Your task to perform on an android device: Open internet settings Image 0: 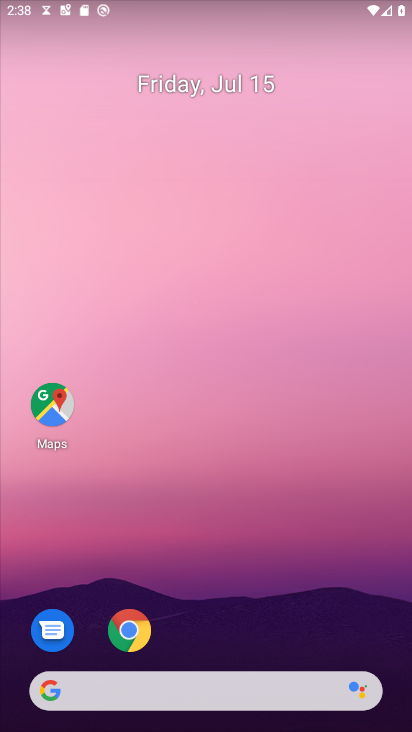
Step 0: drag from (234, 625) to (296, 22)
Your task to perform on an android device: Open internet settings Image 1: 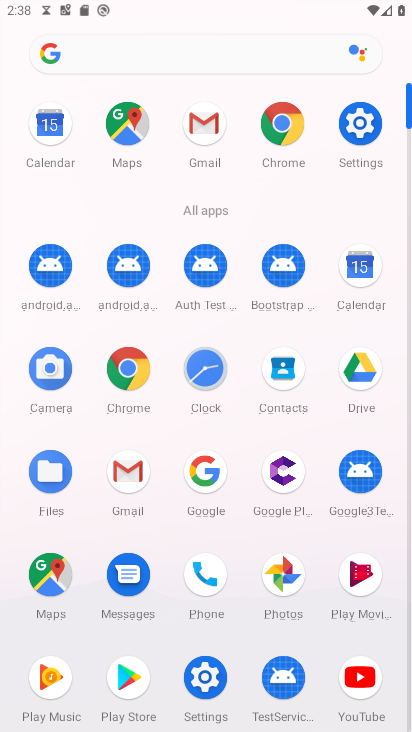
Step 1: click (340, 127)
Your task to perform on an android device: Open internet settings Image 2: 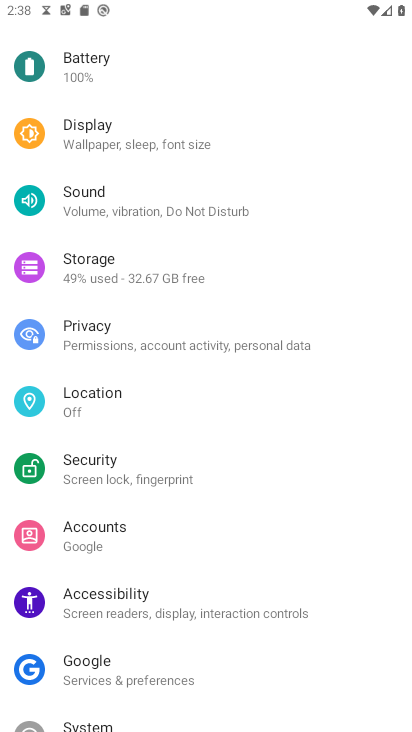
Step 2: drag from (144, 142) to (159, 579)
Your task to perform on an android device: Open internet settings Image 3: 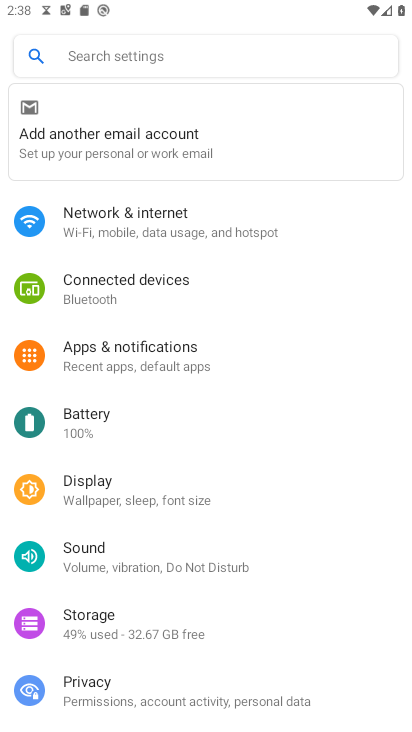
Step 3: click (114, 225)
Your task to perform on an android device: Open internet settings Image 4: 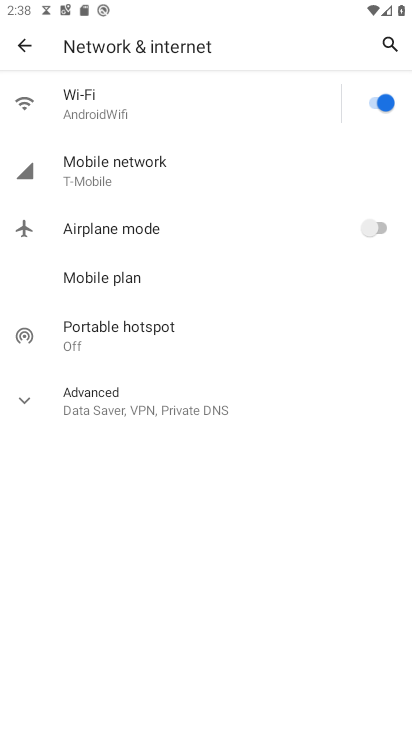
Step 4: click (92, 180)
Your task to perform on an android device: Open internet settings Image 5: 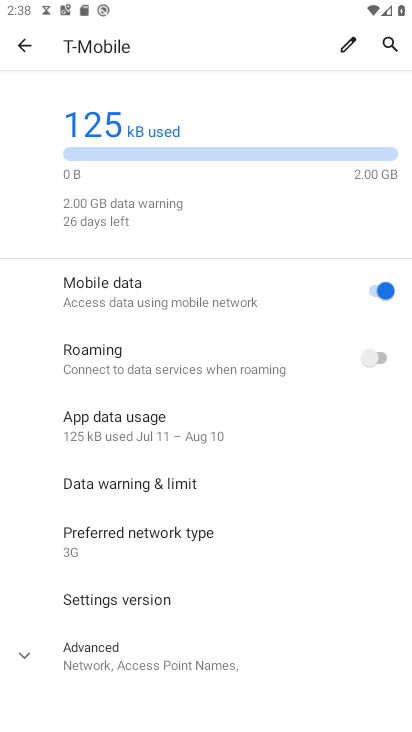
Step 5: task complete